Your task to perform on an android device: Search for "dell alienware" on ebay, select the first entry, and add it to the cart. Image 0: 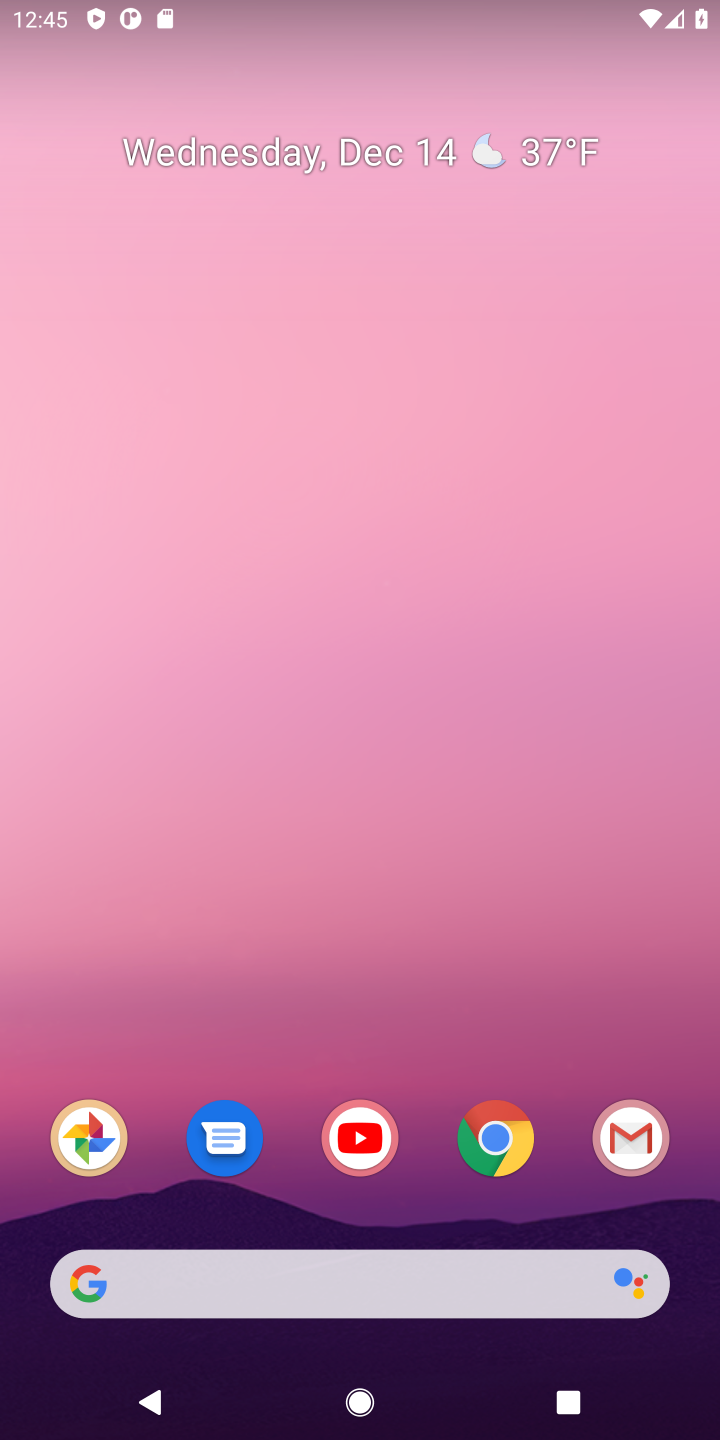
Step 0: click (506, 1134)
Your task to perform on an android device: Search for "dell alienware" on ebay, select the first entry, and add it to the cart. Image 1: 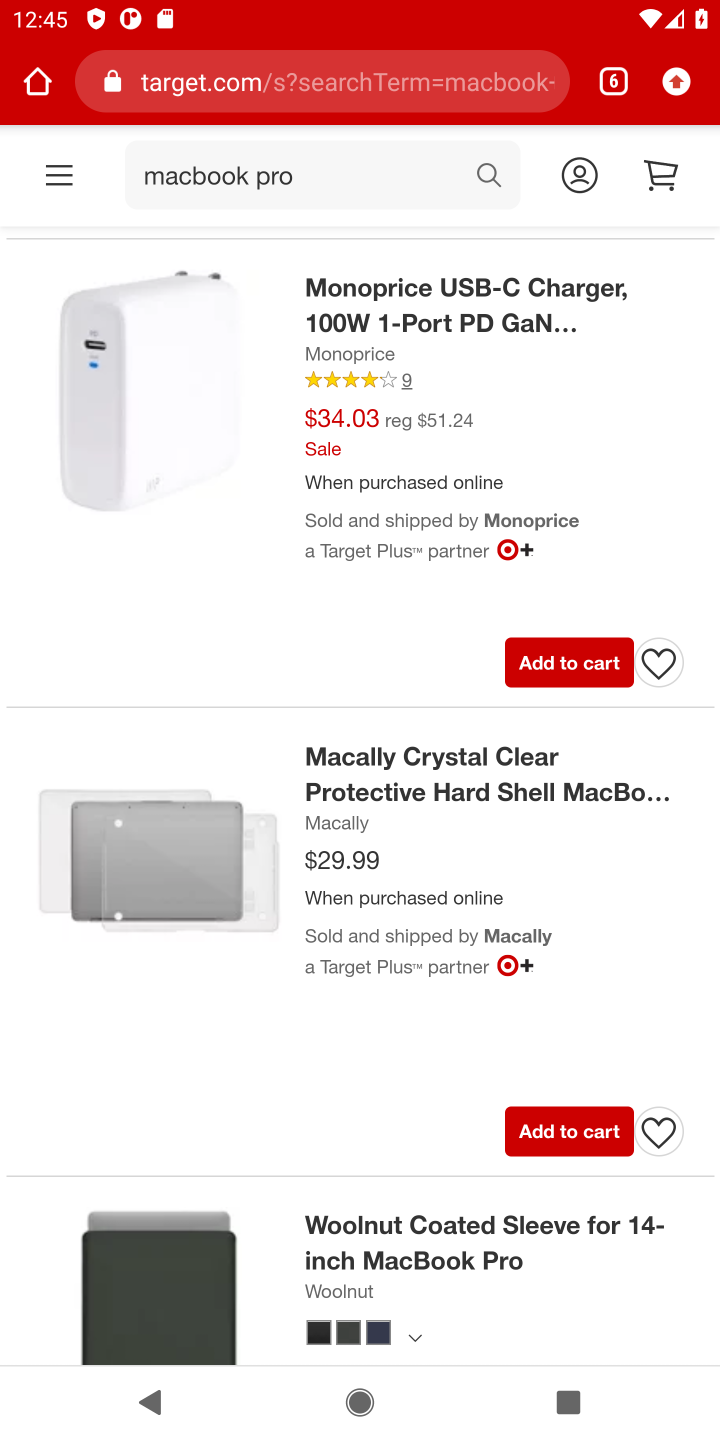
Step 1: click (609, 92)
Your task to perform on an android device: Search for "dell alienware" on ebay, select the first entry, and add it to the cart. Image 2: 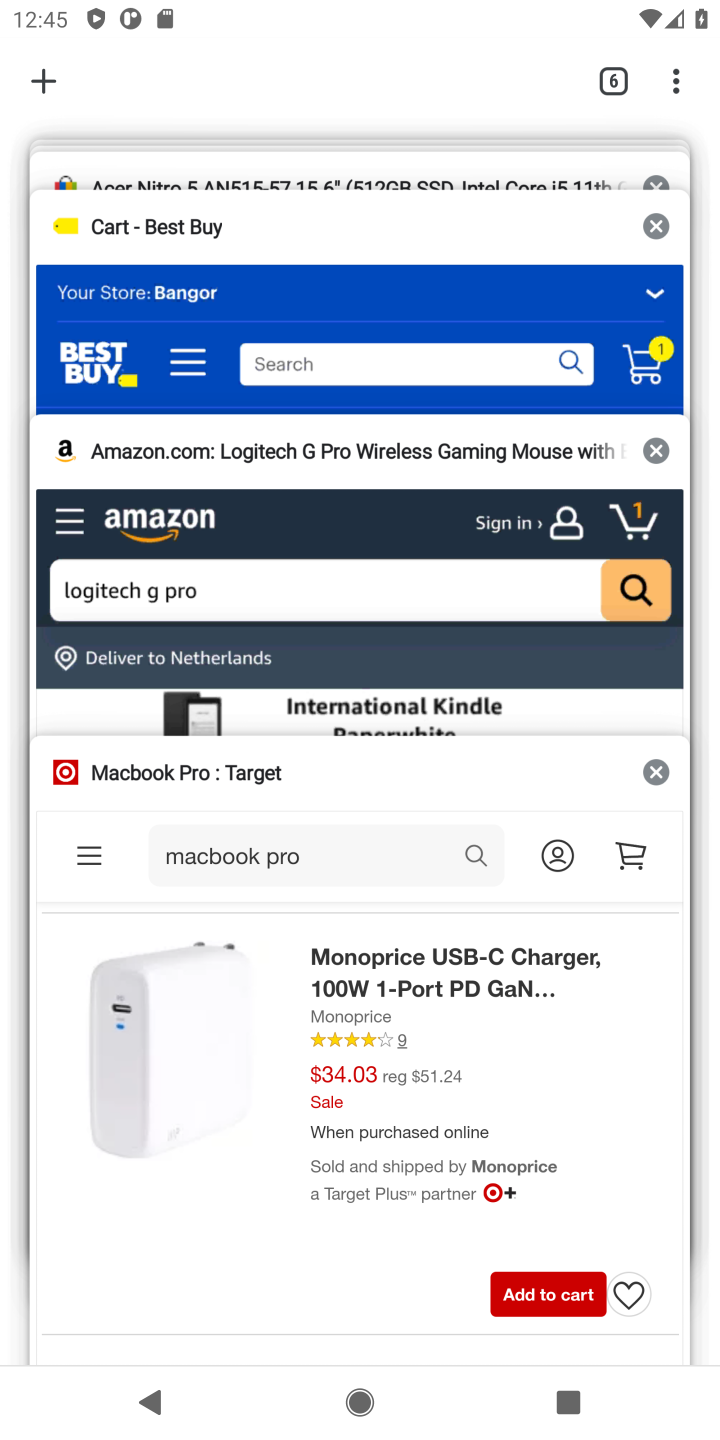
Step 2: click (354, 177)
Your task to perform on an android device: Search for "dell alienware" on ebay, select the first entry, and add it to the cart. Image 3: 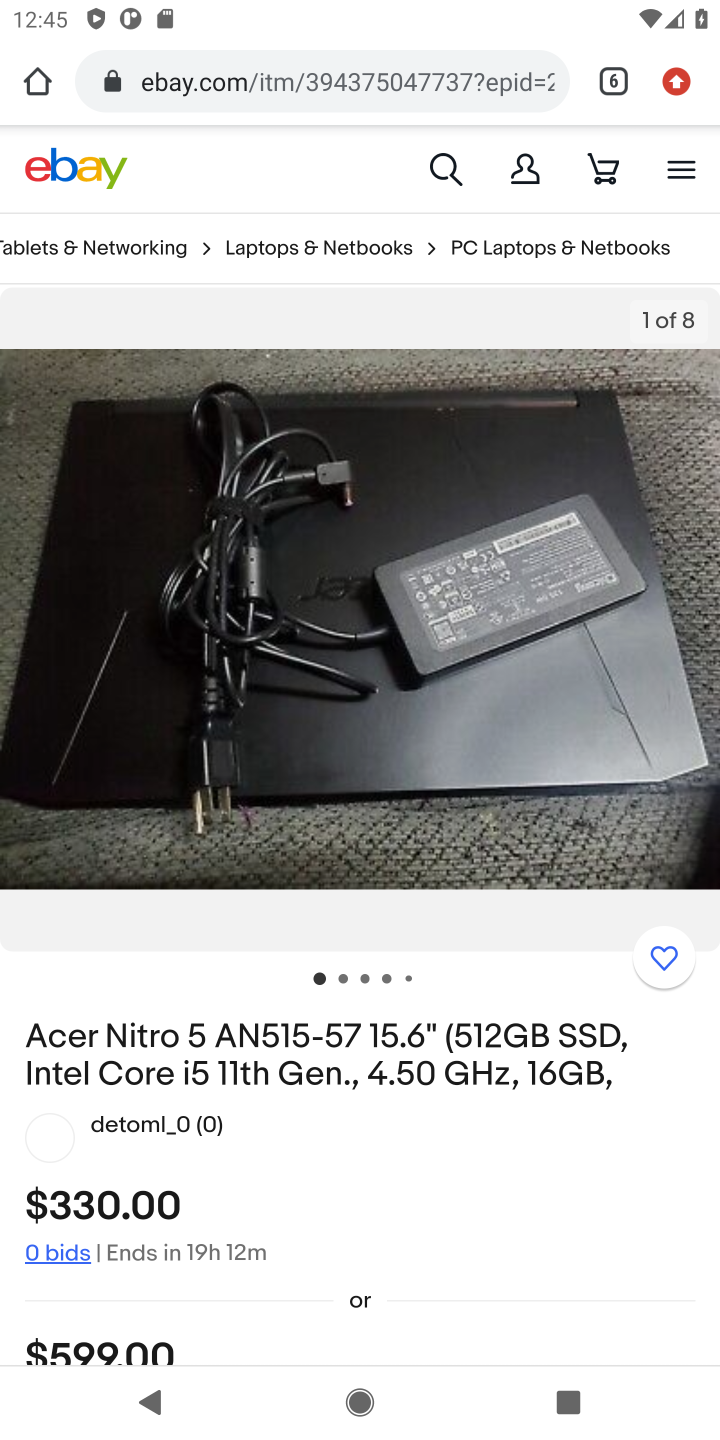
Step 3: click (444, 161)
Your task to perform on an android device: Search for "dell alienware" on ebay, select the first entry, and add it to the cart. Image 4: 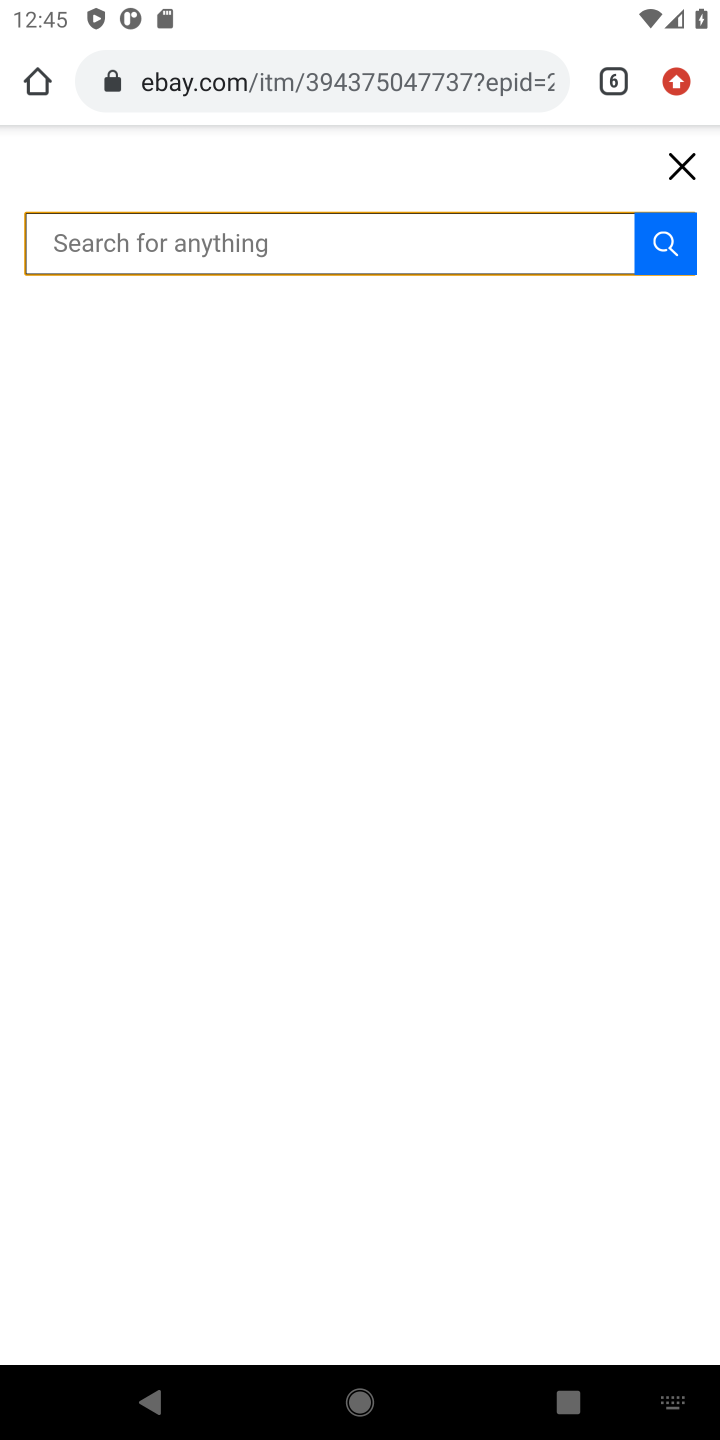
Step 4: type "dell alienware"
Your task to perform on an android device: Search for "dell alienware" on ebay, select the first entry, and add it to the cart. Image 5: 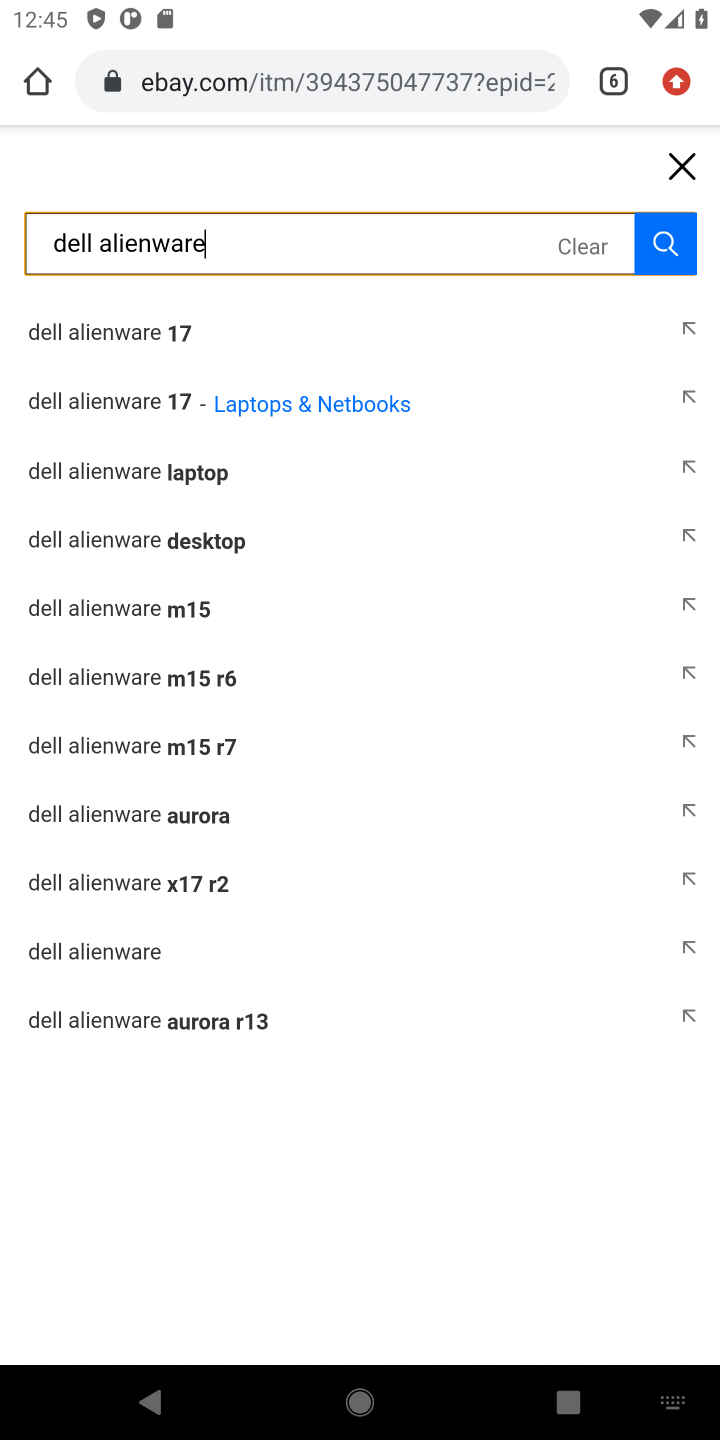
Step 5: click (139, 393)
Your task to perform on an android device: Search for "dell alienware" on ebay, select the first entry, and add it to the cart. Image 6: 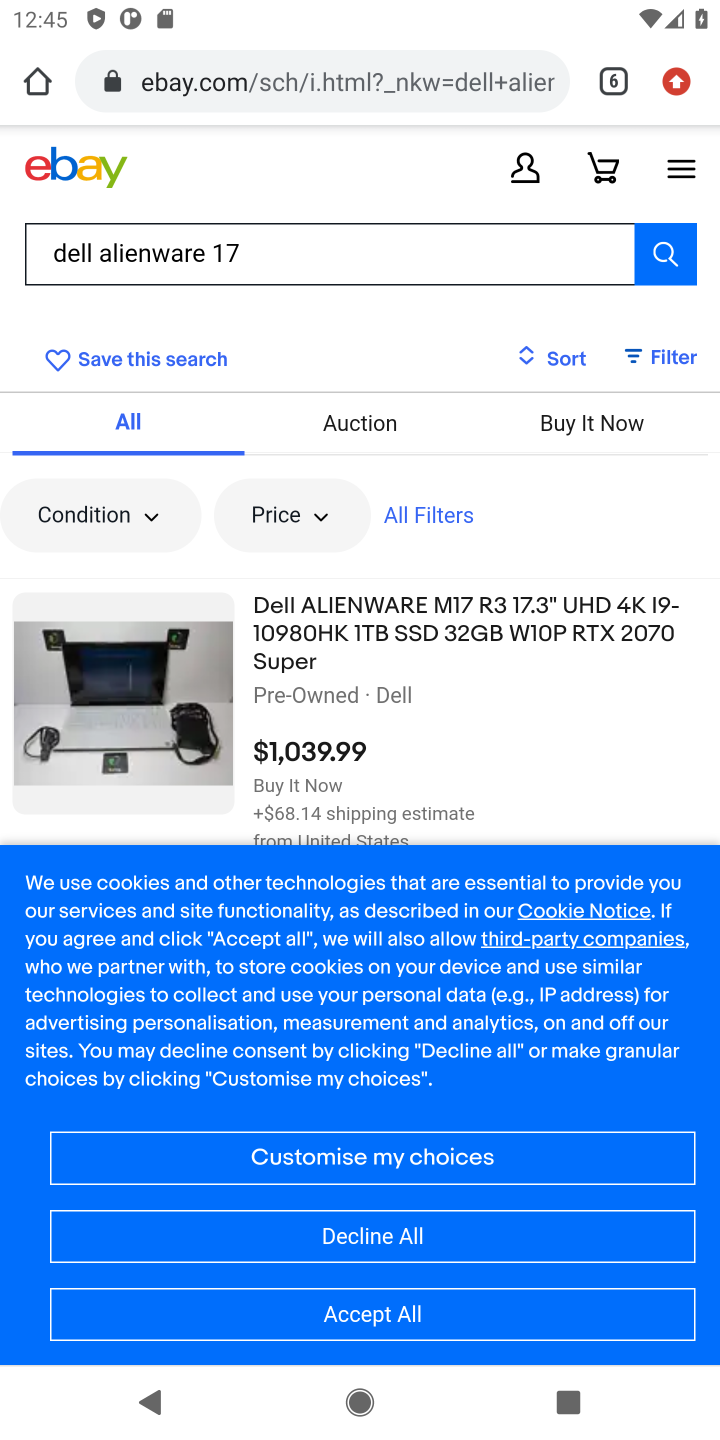
Step 6: click (398, 1238)
Your task to perform on an android device: Search for "dell alienware" on ebay, select the first entry, and add it to the cart. Image 7: 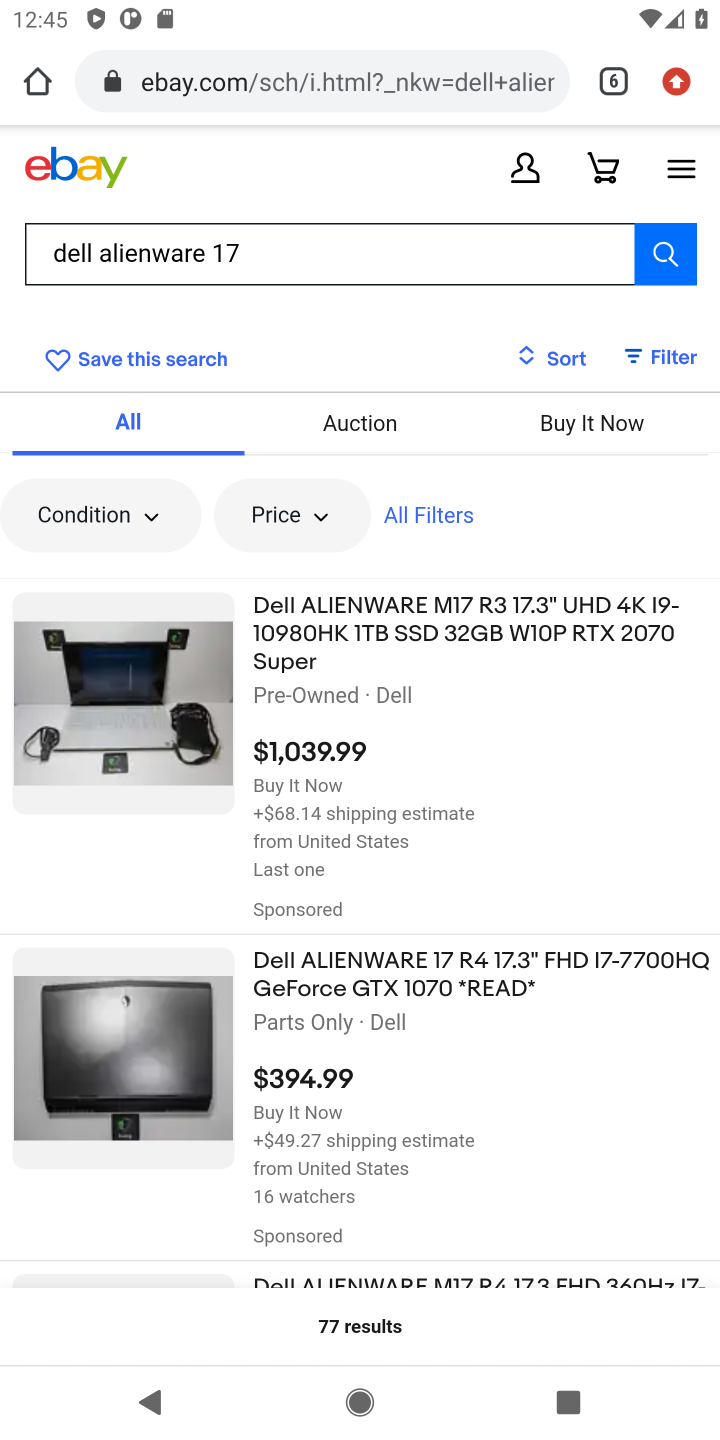
Step 7: click (402, 616)
Your task to perform on an android device: Search for "dell alienware" on ebay, select the first entry, and add it to the cart. Image 8: 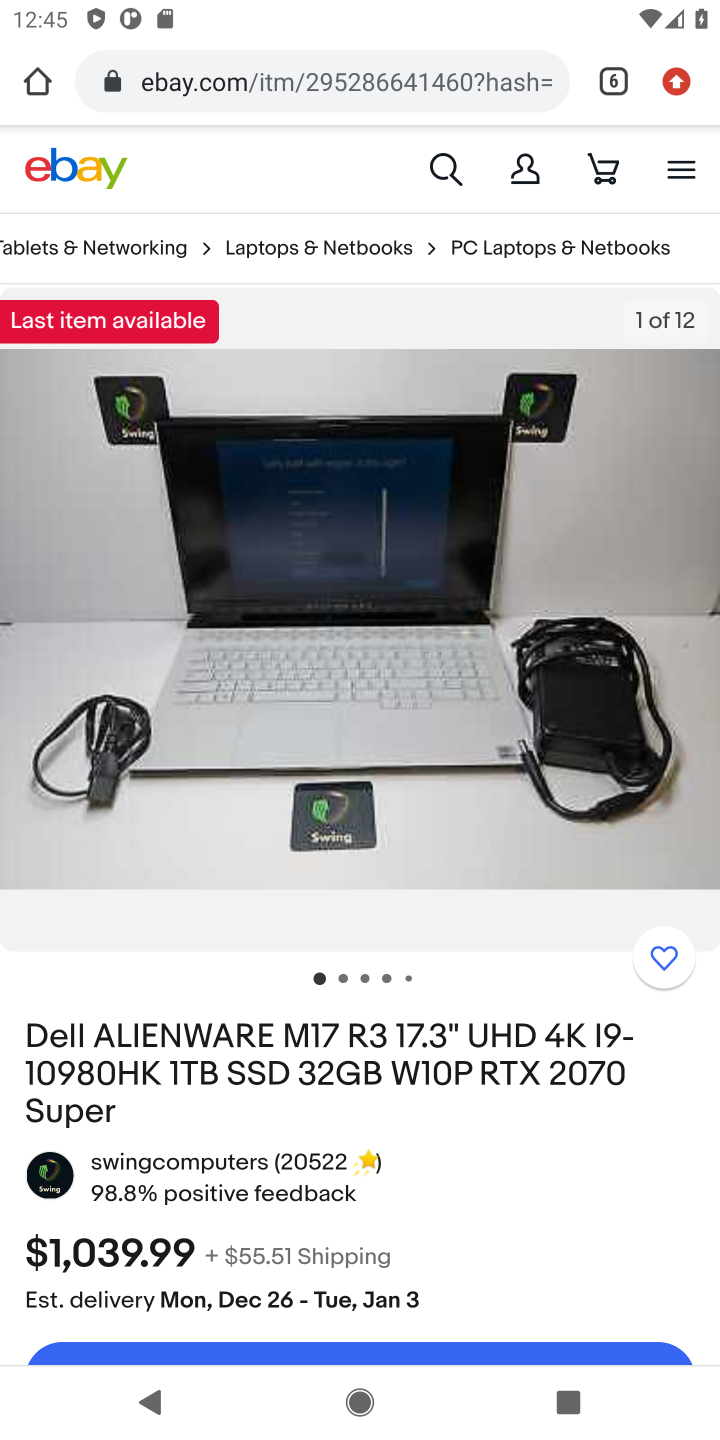
Step 8: drag from (561, 1236) to (607, 25)
Your task to perform on an android device: Search for "dell alienware" on ebay, select the first entry, and add it to the cart. Image 9: 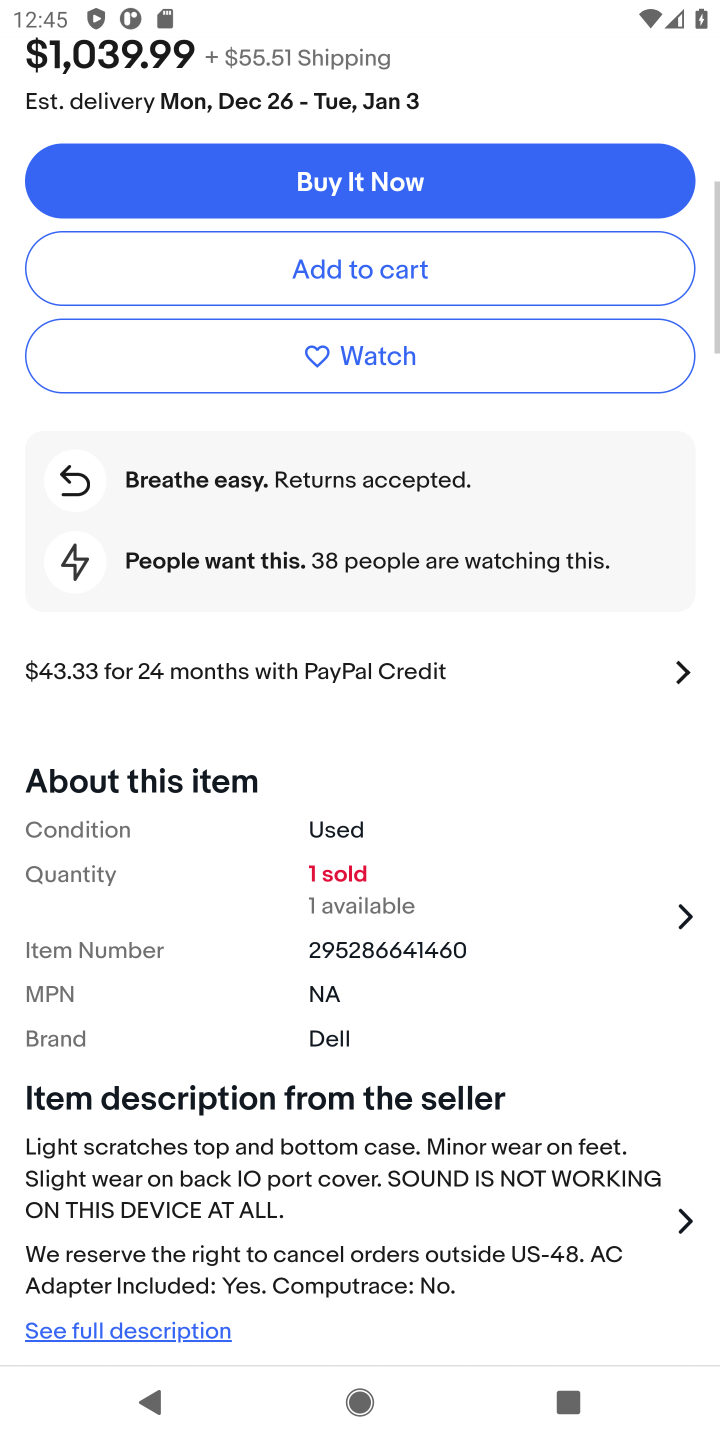
Step 9: click (362, 256)
Your task to perform on an android device: Search for "dell alienware" on ebay, select the first entry, and add it to the cart. Image 10: 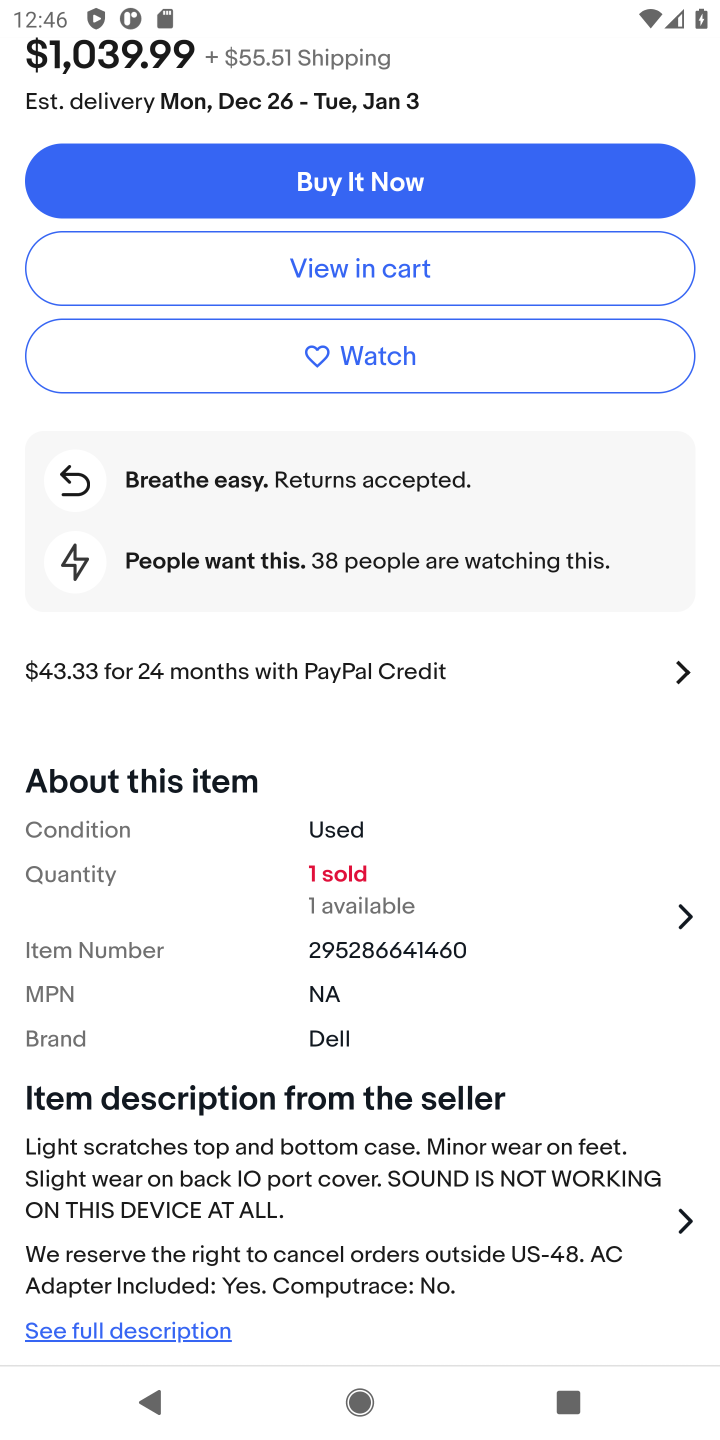
Step 10: task complete